Your task to perform on an android device: turn pop-ups on in chrome Image 0: 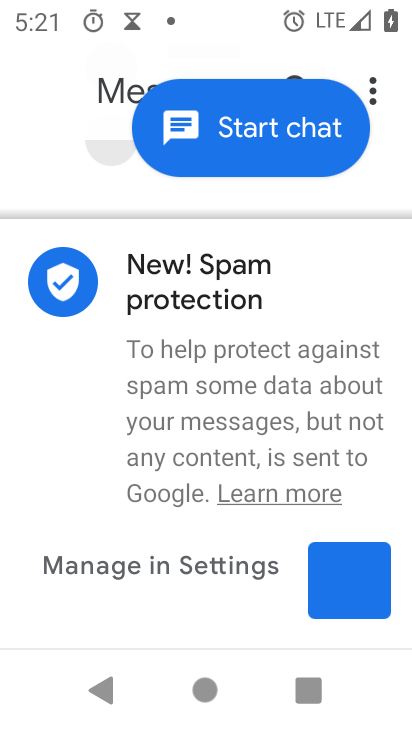
Step 0: drag from (216, 11) to (312, 35)
Your task to perform on an android device: turn pop-ups on in chrome Image 1: 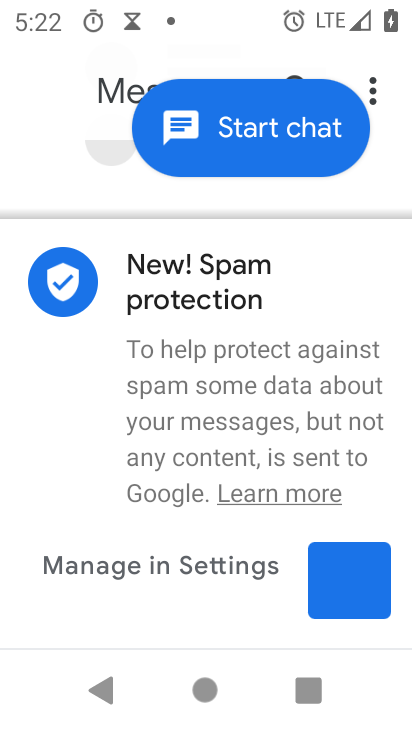
Step 1: press home button
Your task to perform on an android device: turn pop-ups on in chrome Image 2: 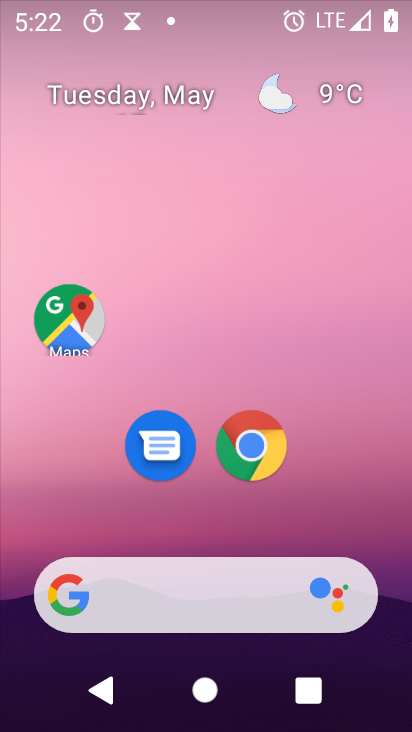
Step 2: drag from (323, 491) to (319, 61)
Your task to perform on an android device: turn pop-ups on in chrome Image 3: 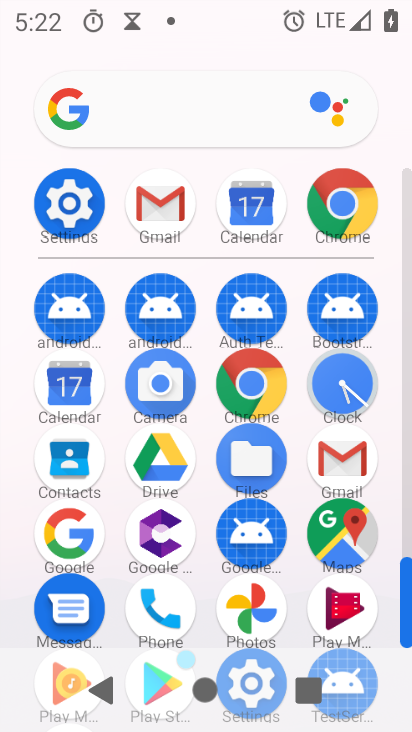
Step 3: click (271, 398)
Your task to perform on an android device: turn pop-ups on in chrome Image 4: 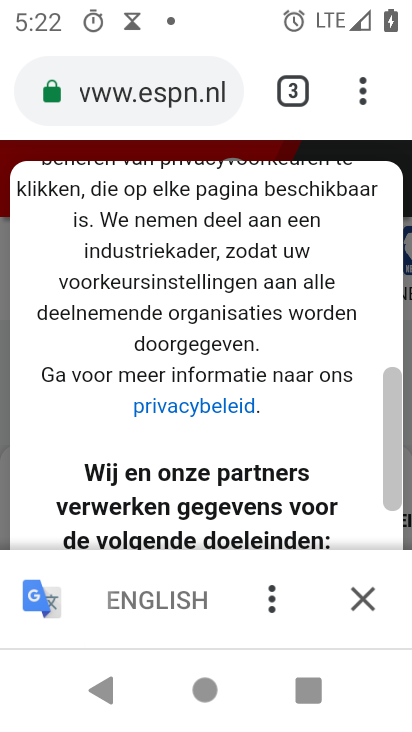
Step 4: drag from (366, 82) to (172, 485)
Your task to perform on an android device: turn pop-ups on in chrome Image 5: 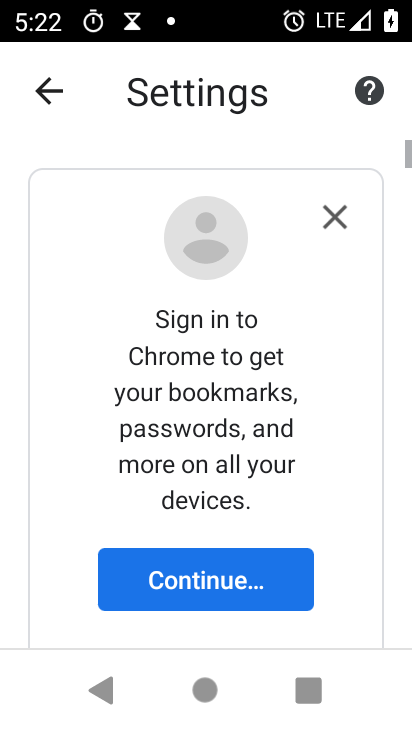
Step 5: drag from (264, 517) to (261, 148)
Your task to perform on an android device: turn pop-ups on in chrome Image 6: 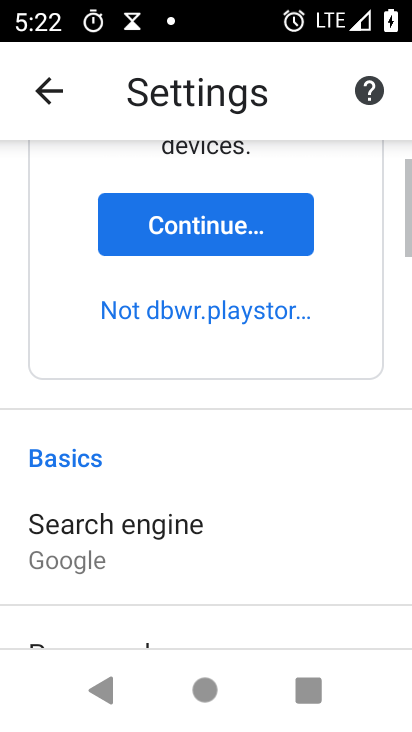
Step 6: drag from (358, 594) to (338, 99)
Your task to perform on an android device: turn pop-ups on in chrome Image 7: 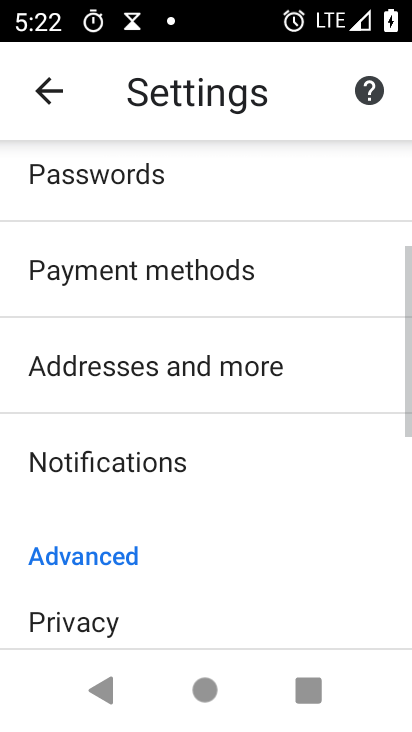
Step 7: drag from (273, 521) to (283, 180)
Your task to perform on an android device: turn pop-ups on in chrome Image 8: 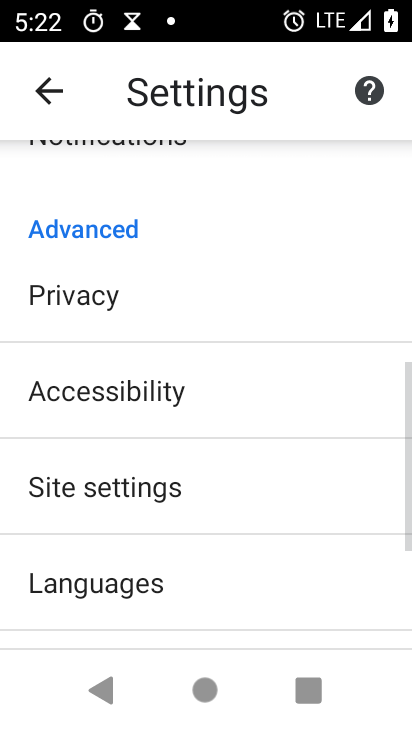
Step 8: click (160, 490)
Your task to perform on an android device: turn pop-ups on in chrome Image 9: 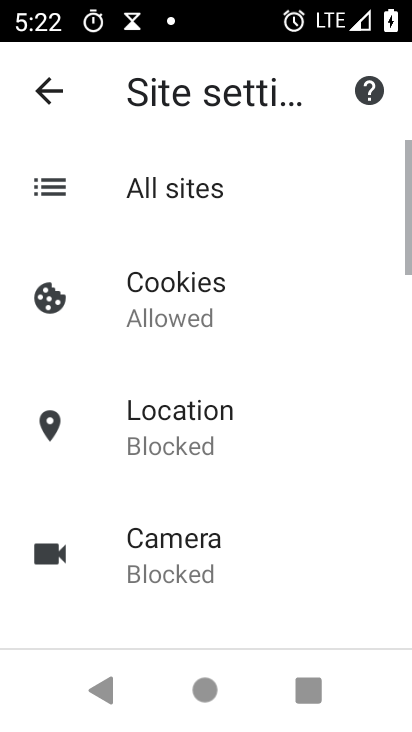
Step 9: drag from (276, 594) to (304, 99)
Your task to perform on an android device: turn pop-ups on in chrome Image 10: 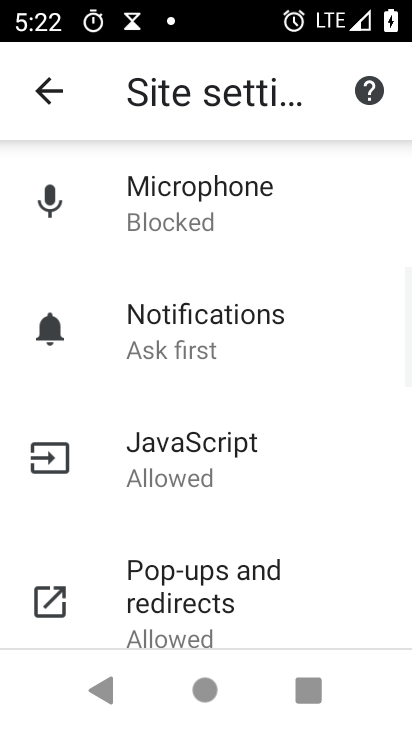
Step 10: drag from (335, 590) to (326, 394)
Your task to perform on an android device: turn pop-ups on in chrome Image 11: 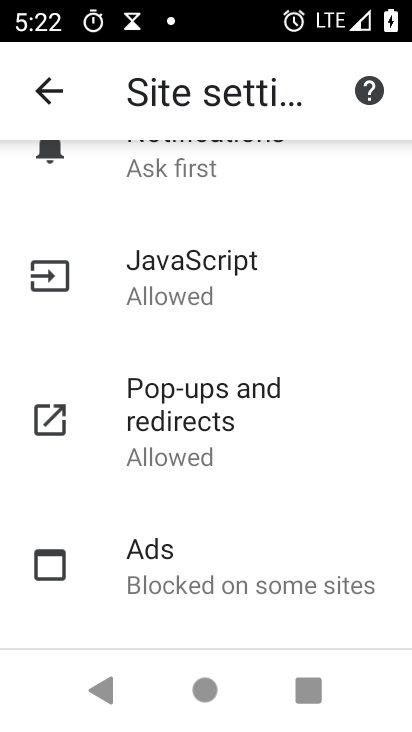
Step 11: click (251, 417)
Your task to perform on an android device: turn pop-ups on in chrome Image 12: 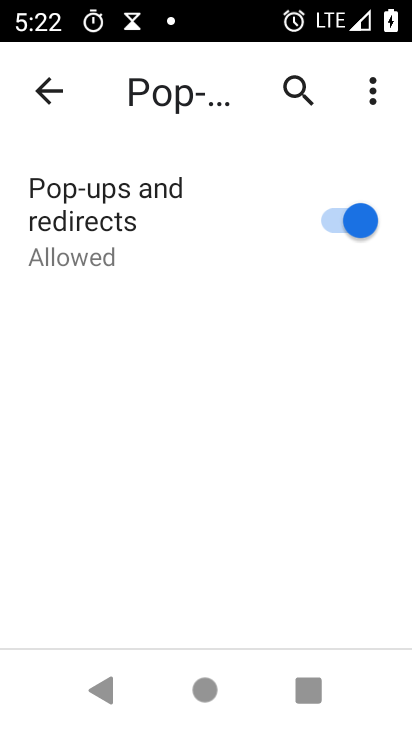
Step 12: task complete